Your task to perform on an android device: Clear the cart on costco.com. Add "logitech g933" to the cart on costco.com Image 0: 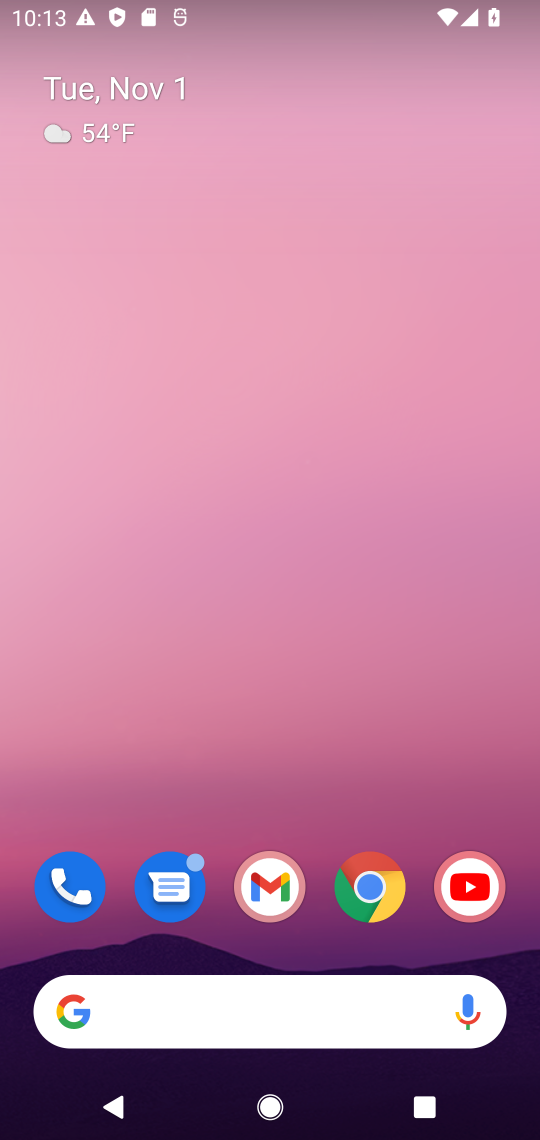
Step 0: drag from (225, 893) to (240, 227)
Your task to perform on an android device: Clear the cart on costco.com. Add "logitech g933" to the cart on costco.com Image 1: 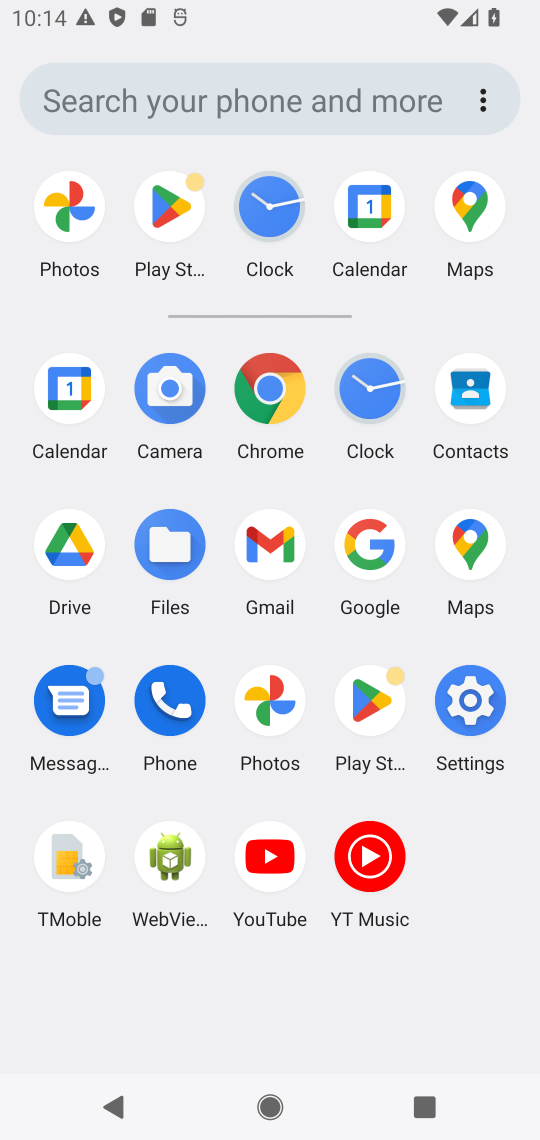
Step 1: click (375, 528)
Your task to perform on an android device: Clear the cart on costco.com. Add "logitech g933" to the cart on costco.com Image 2: 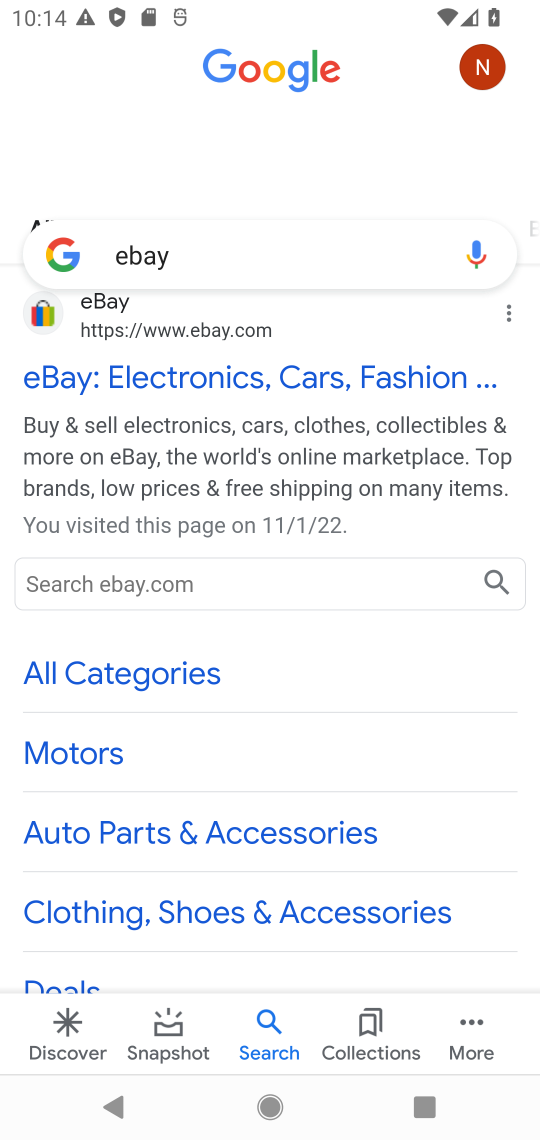
Step 2: click (252, 253)
Your task to perform on an android device: Clear the cart on costco.com. Add "logitech g933" to the cart on costco.com Image 3: 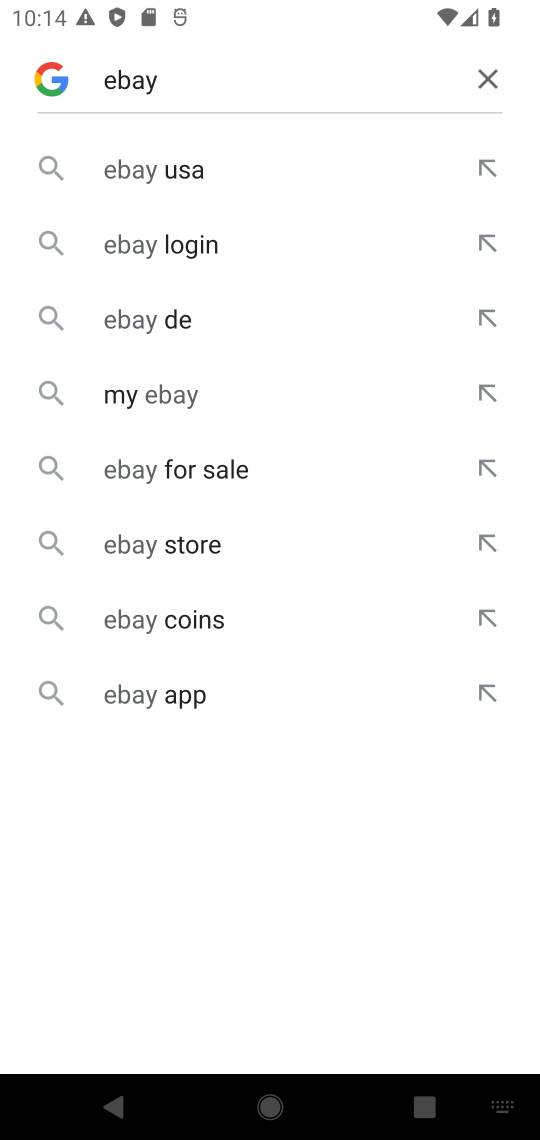
Step 3: click (486, 71)
Your task to perform on an android device: Clear the cart on costco.com. Add "logitech g933" to the cart on costco.com Image 4: 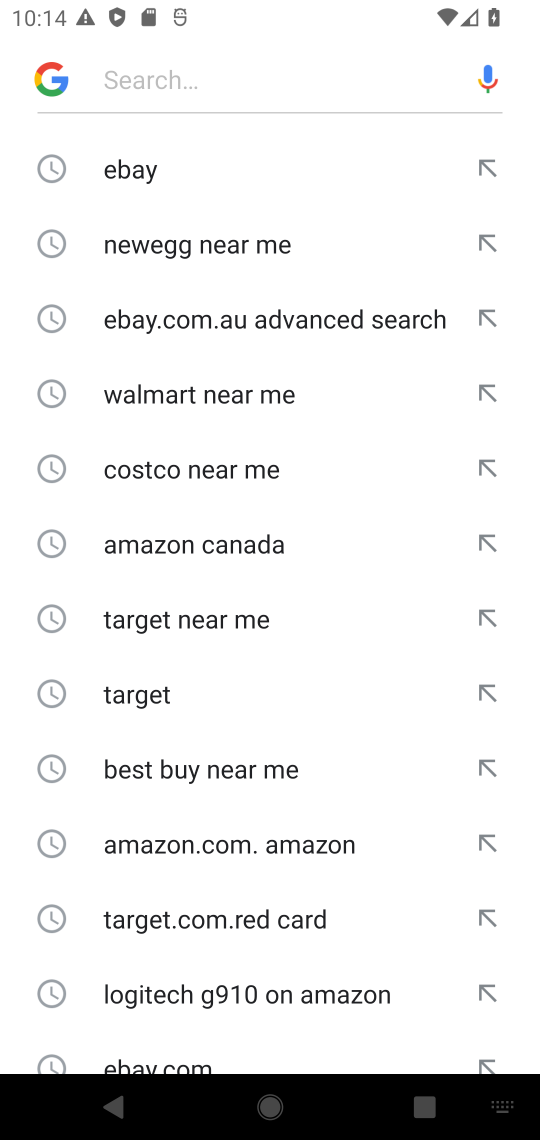
Step 4: click (218, 77)
Your task to perform on an android device: Clear the cart on costco.com. Add "logitech g933" to the cart on costco.com Image 5: 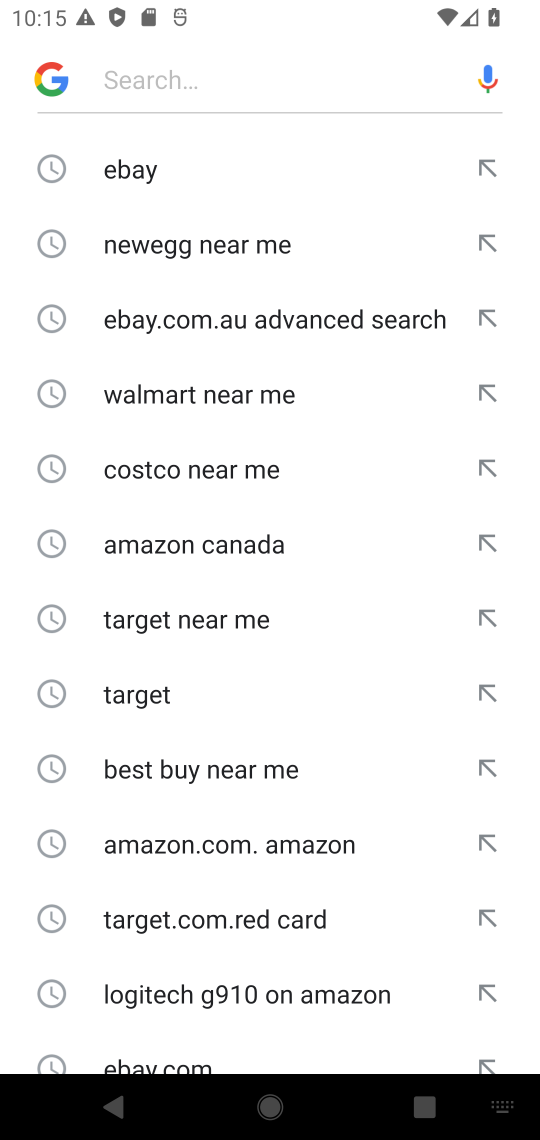
Step 5: type "costco "
Your task to perform on an android device: Clear the cart on costco.com. Add "logitech g933" to the cart on costco.com Image 6: 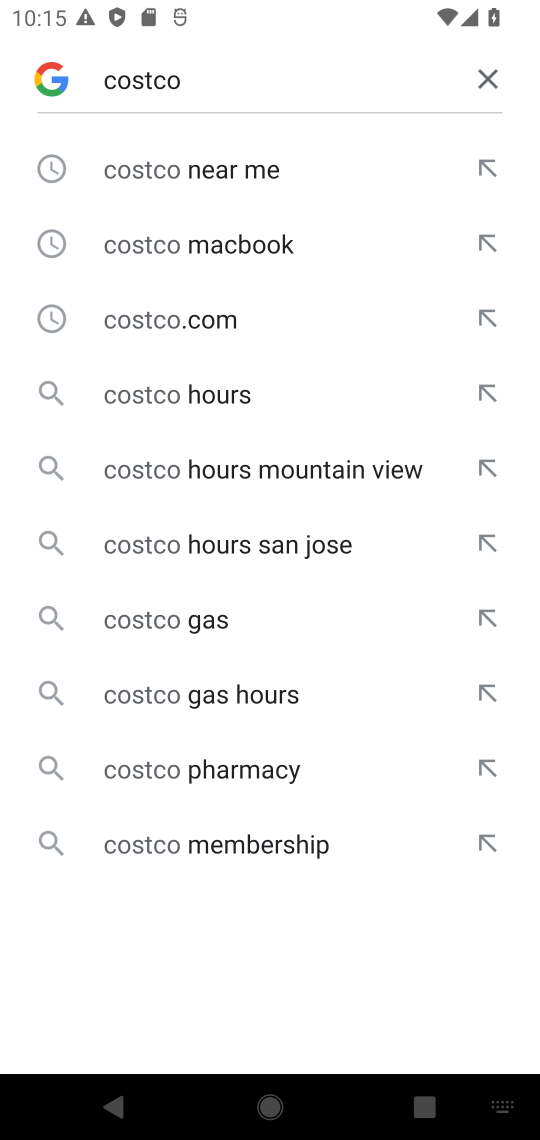
Step 6: click (206, 173)
Your task to perform on an android device: Clear the cart on costco.com. Add "logitech g933" to the cart on costco.com Image 7: 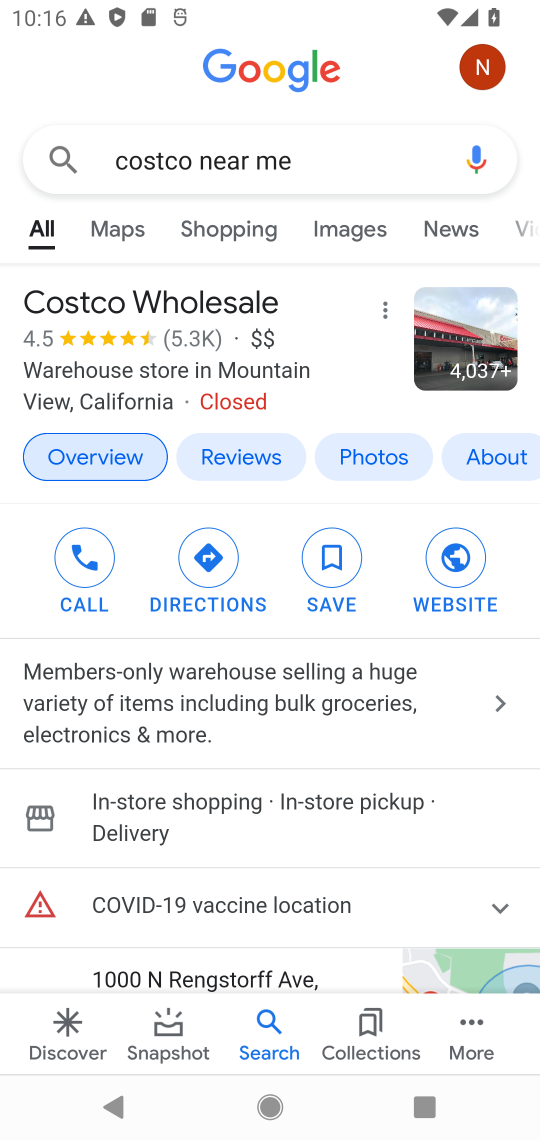
Step 7: drag from (183, 904) to (234, 396)
Your task to perform on an android device: Clear the cart on costco.com. Add "logitech g933" to the cart on costco.com Image 8: 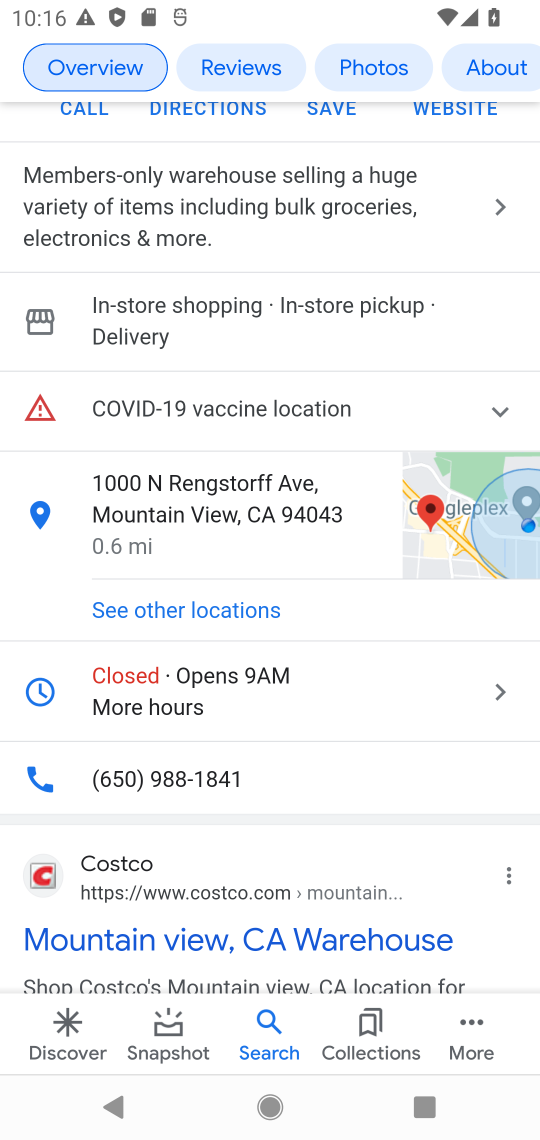
Step 8: drag from (178, 939) to (237, 412)
Your task to perform on an android device: Clear the cart on costco.com. Add "logitech g933" to the cart on costco.com Image 9: 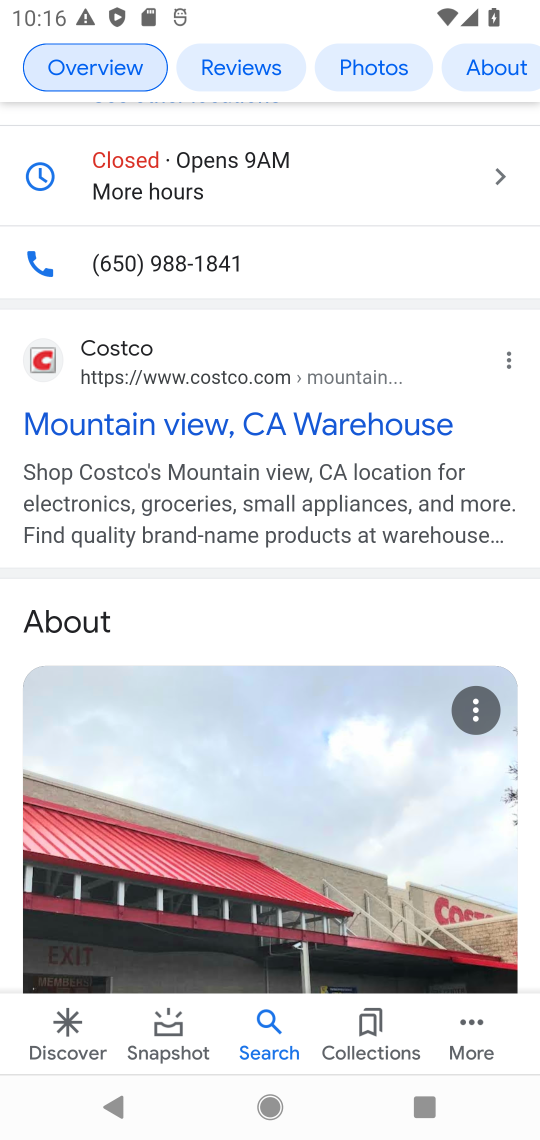
Step 9: click (40, 357)
Your task to perform on an android device: Clear the cart on costco.com. Add "logitech g933" to the cart on costco.com Image 10: 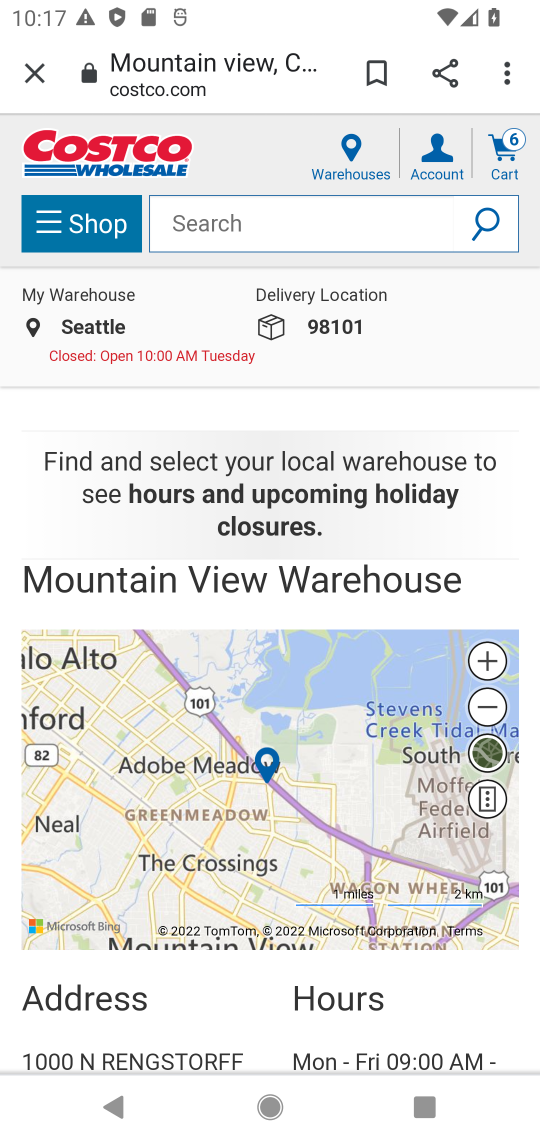
Step 10: click (252, 205)
Your task to perform on an android device: Clear the cart on costco.com. Add "logitech g933" to the cart on costco.com Image 11: 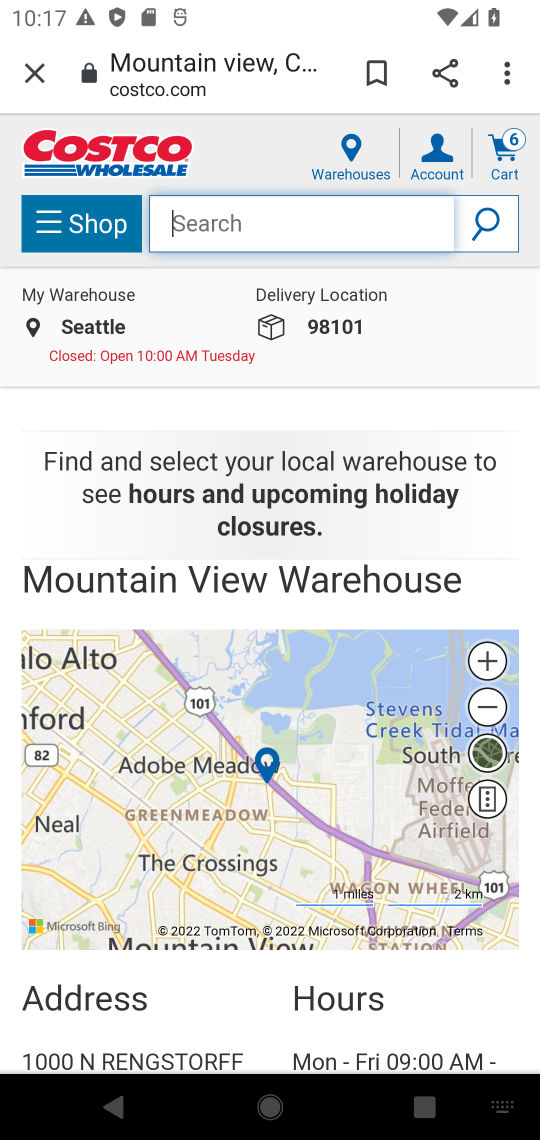
Step 11: type "logitech g933 "
Your task to perform on an android device: Clear the cart on costco.com. Add "logitech g933" to the cart on costco.com Image 12: 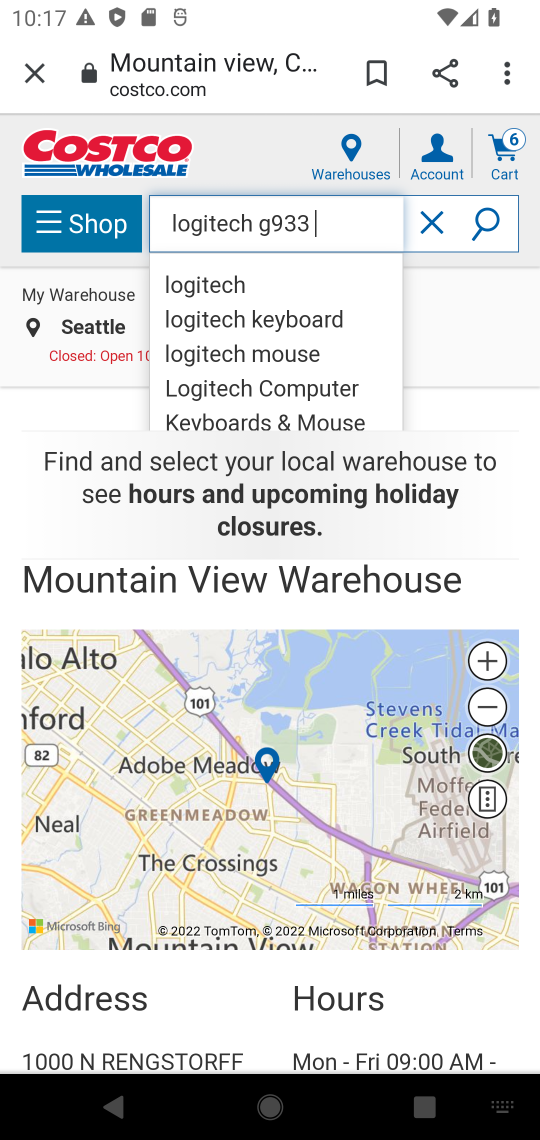
Step 12: click (226, 275)
Your task to perform on an android device: Clear the cart on costco.com. Add "logitech g933" to the cart on costco.com Image 13: 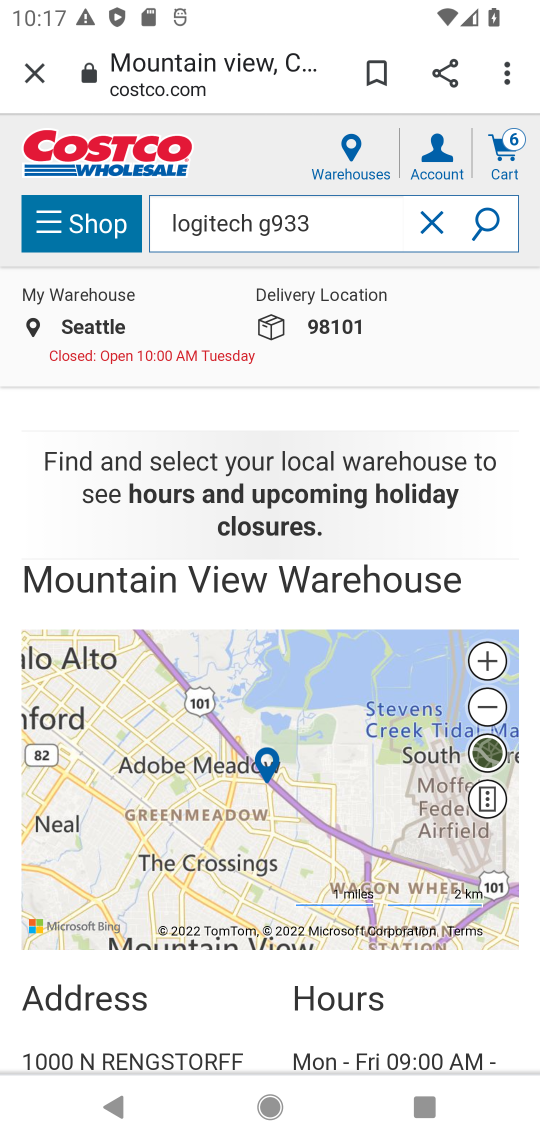
Step 13: click (484, 230)
Your task to perform on an android device: Clear the cart on costco.com. Add "logitech g933" to the cart on costco.com Image 14: 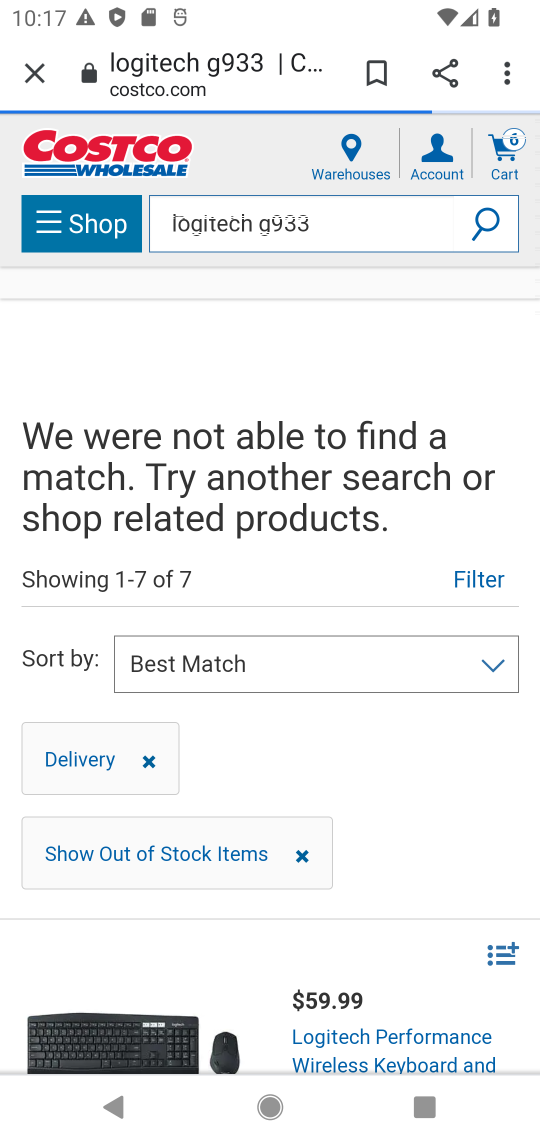
Step 14: task complete